Your task to perform on an android device: delete browsing data in the chrome app Image 0: 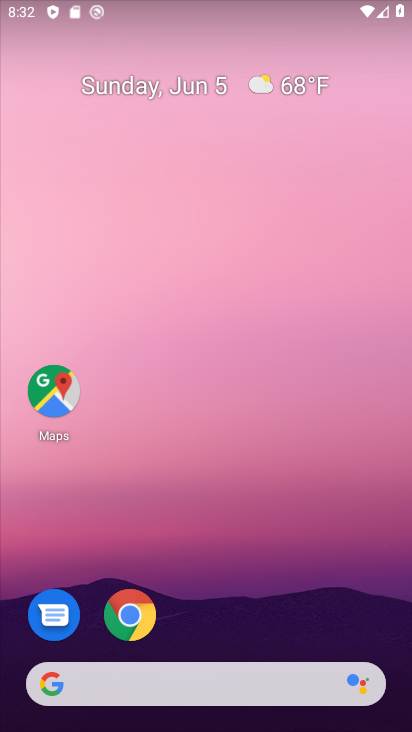
Step 0: click (131, 615)
Your task to perform on an android device: delete browsing data in the chrome app Image 1: 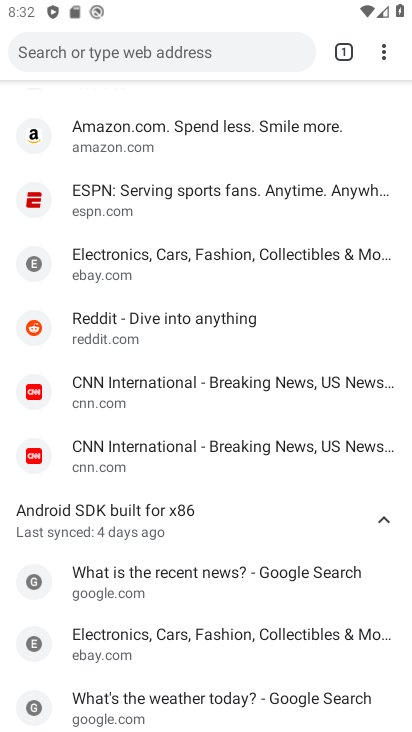
Step 1: click (379, 49)
Your task to perform on an android device: delete browsing data in the chrome app Image 2: 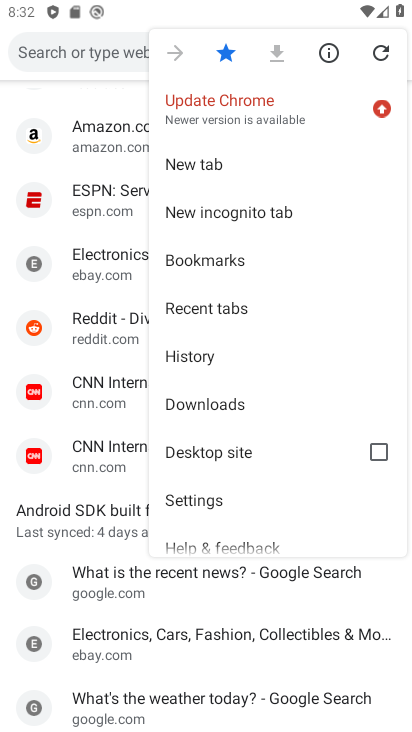
Step 2: click (216, 491)
Your task to perform on an android device: delete browsing data in the chrome app Image 3: 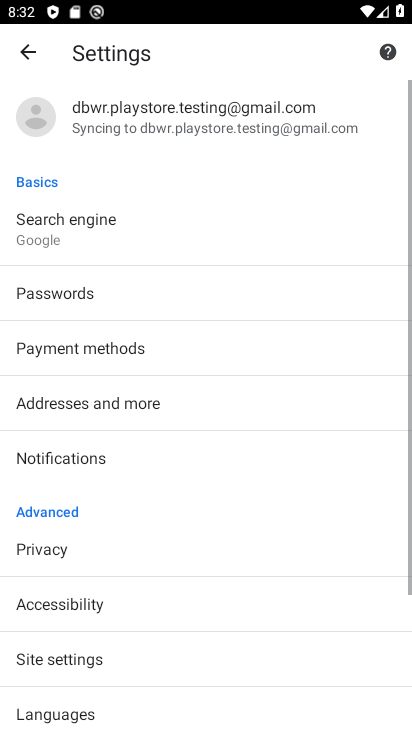
Step 3: click (68, 559)
Your task to perform on an android device: delete browsing data in the chrome app Image 4: 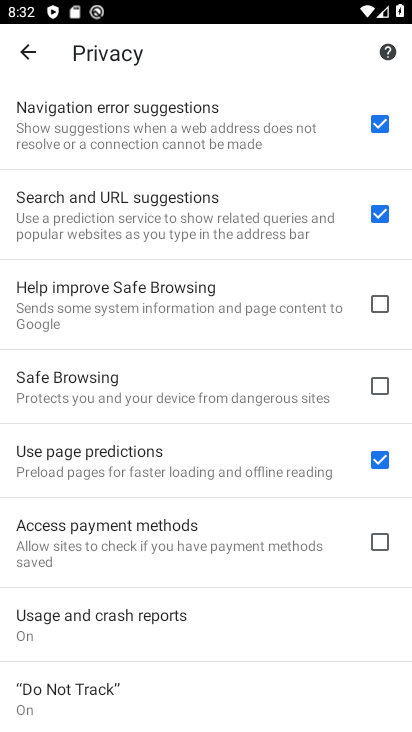
Step 4: drag from (144, 687) to (207, 285)
Your task to perform on an android device: delete browsing data in the chrome app Image 5: 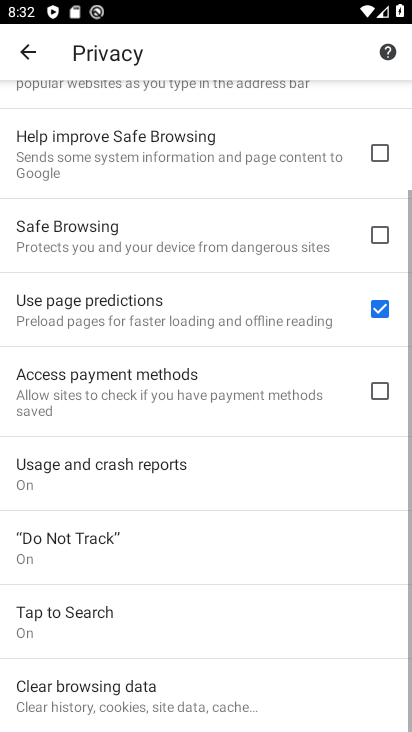
Step 5: click (161, 717)
Your task to perform on an android device: delete browsing data in the chrome app Image 6: 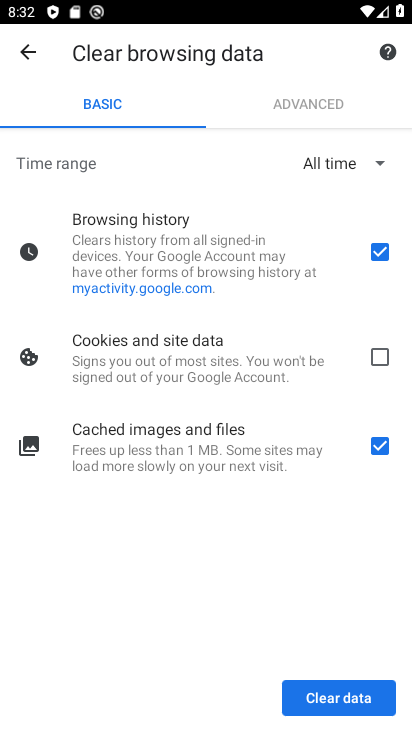
Step 6: click (383, 443)
Your task to perform on an android device: delete browsing data in the chrome app Image 7: 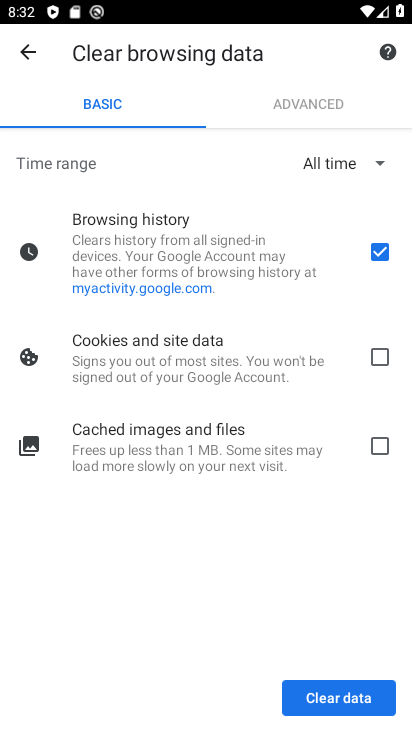
Step 7: click (320, 698)
Your task to perform on an android device: delete browsing data in the chrome app Image 8: 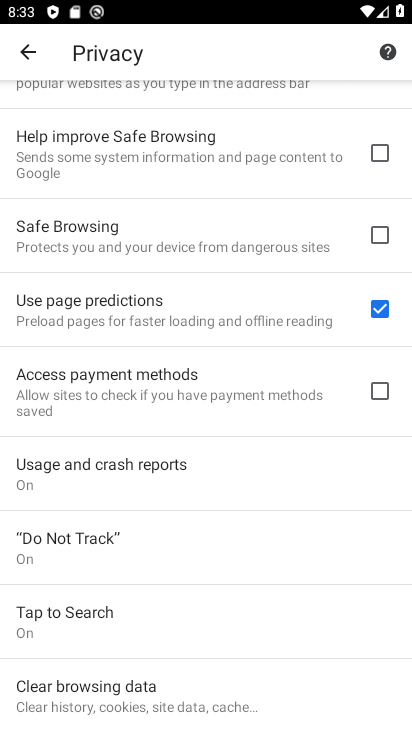
Step 8: task complete